Your task to perform on an android device: check google app version Image 0: 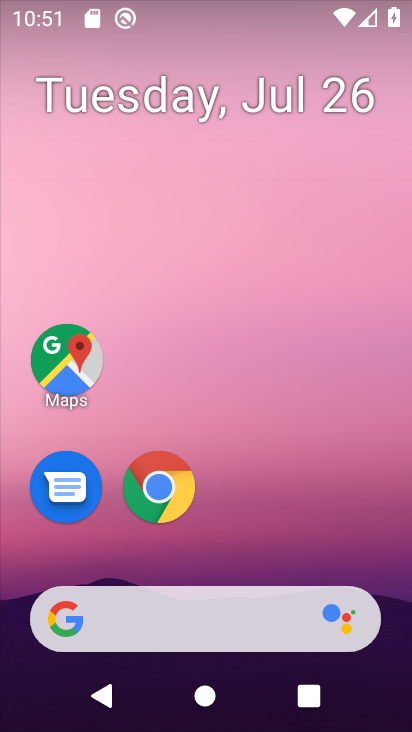
Step 0: drag from (250, 410) to (89, 10)
Your task to perform on an android device: check google app version Image 1: 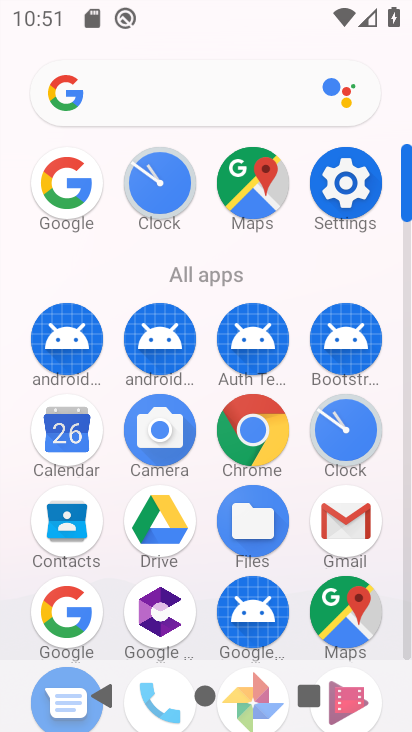
Step 1: drag from (223, 612) to (297, 109)
Your task to perform on an android device: check google app version Image 2: 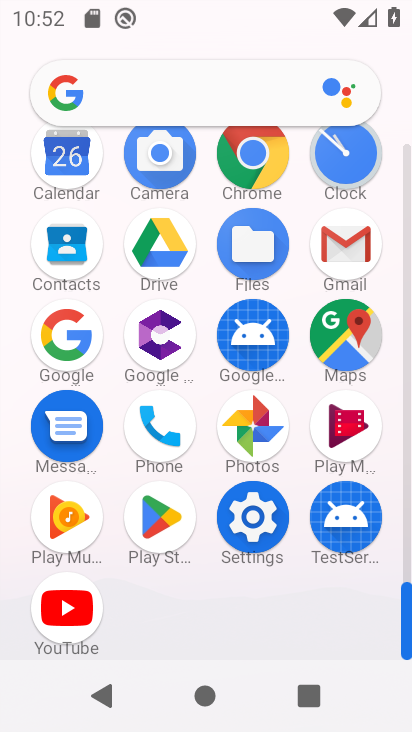
Step 2: click (74, 334)
Your task to perform on an android device: check google app version Image 3: 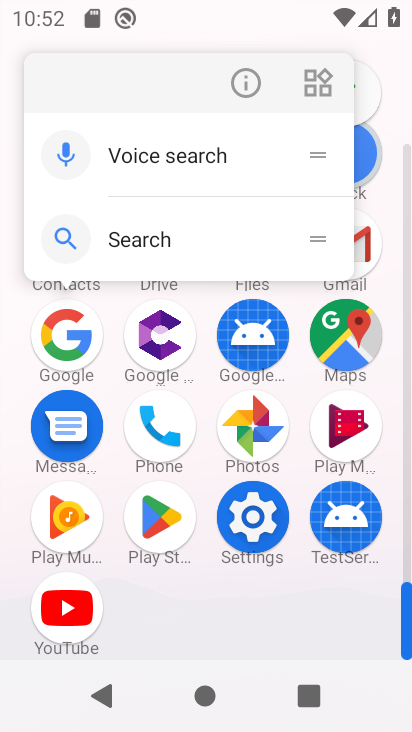
Step 3: click (252, 83)
Your task to perform on an android device: check google app version Image 4: 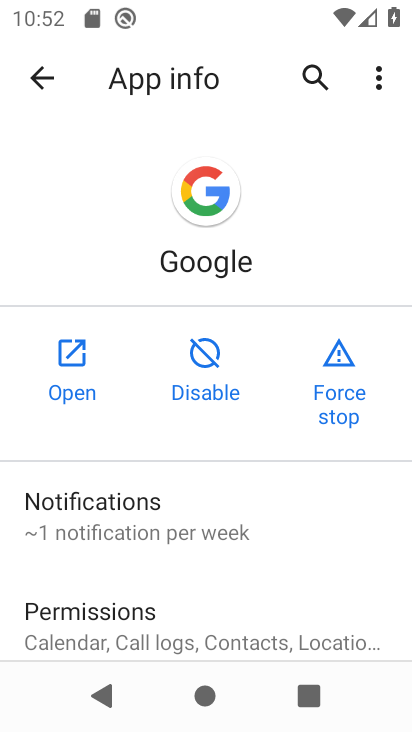
Step 4: drag from (207, 643) to (266, 12)
Your task to perform on an android device: check google app version Image 5: 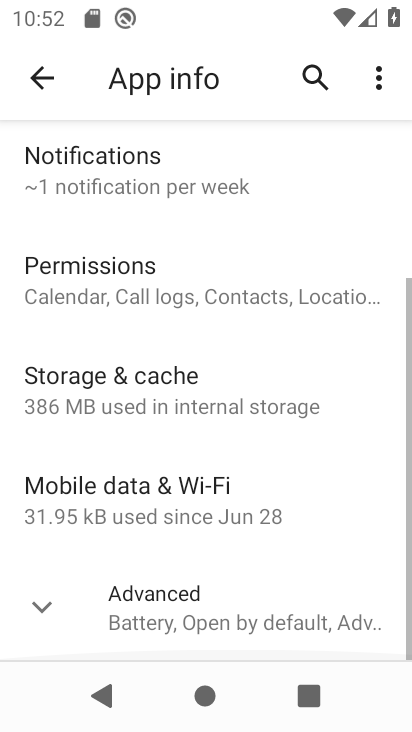
Step 5: drag from (122, 546) to (213, 7)
Your task to perform on an android device: check google app version Image 6: 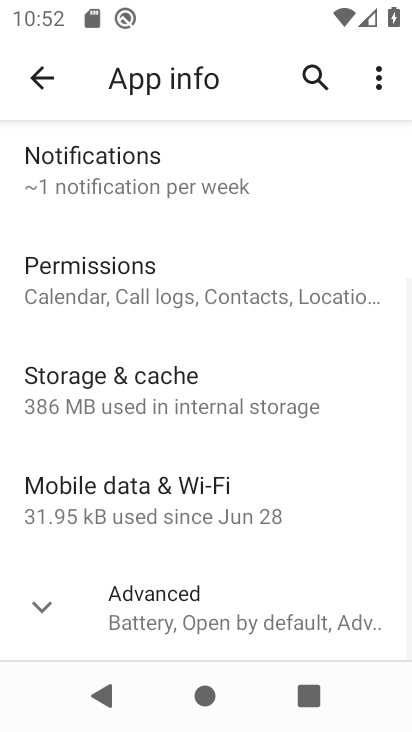
Step 6: click (159, 587)
Your task to perform on an android device: check google app version Image 7: 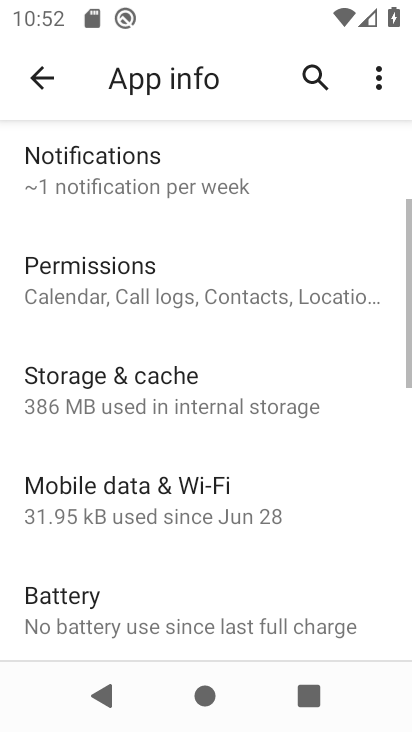
Step 7: task complete